Your task to perform on an android device: toggle show notifications on the lock screen Image 0: 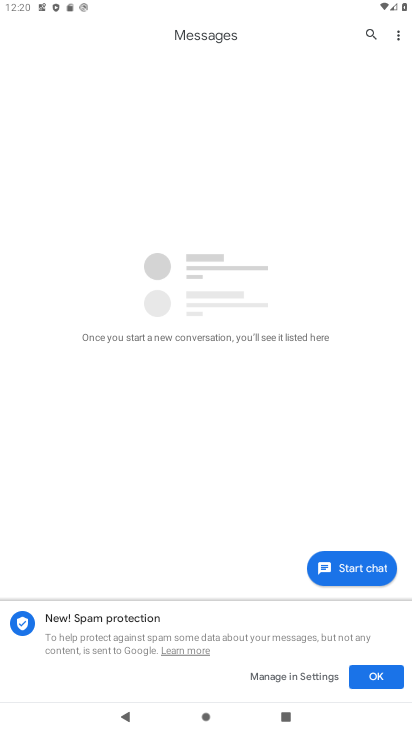
Step 0: press home button
Your task to perform on an android device: toggle show notifications on the lock screen Image 1: 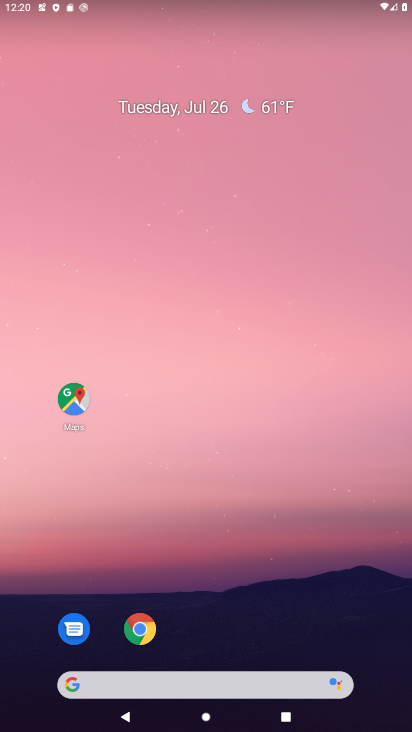
Step 1: drag from (199, 642) to (236, 214)
Your task to perform on an android device: toggle show notifications on the lock screen Image 2: 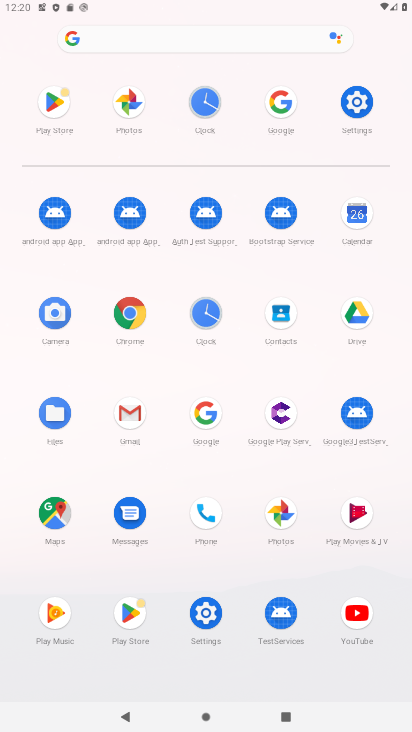
Step 2: click (355, 94)
Your task to perform on an android device: toggle show notifications on the lock screen Image 3: 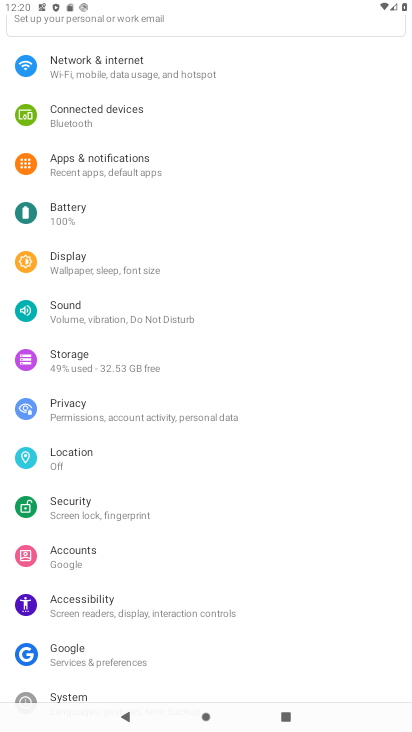
Step 3: click (169, 157)
Your task to perform on an android device: toggle show notifications on the lock screen Image 4: 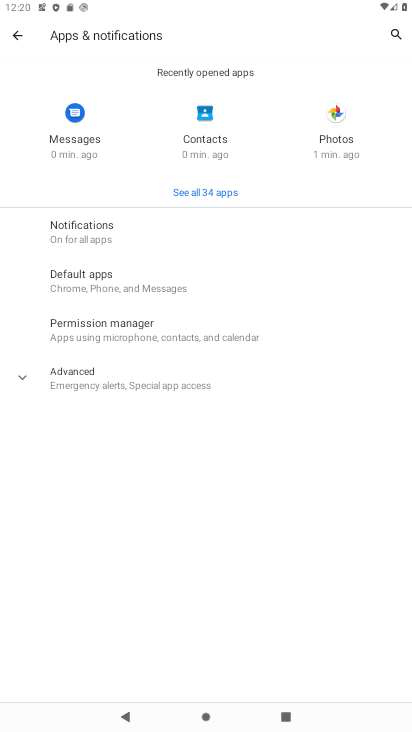
Step 4: click (158, 241)
Your task to perform on an android device: toggle show notifications on the lock screen Image 5: 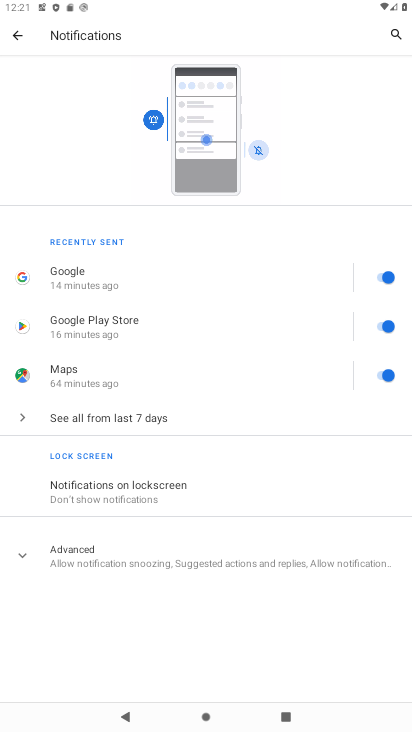
Step 5: click (133, 503)
Your task to perform on an android device: toggle show notifications on the lock screen Image 6: 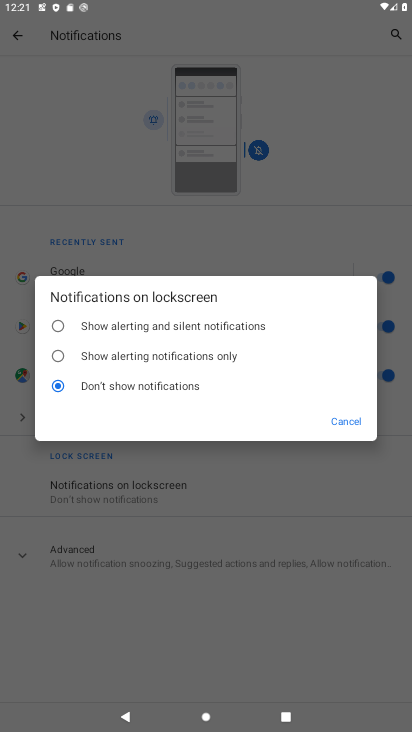
Step 6: click (187, 332)
Your task to perform on an android device: toggle show notifications on the lock screen Image 7: 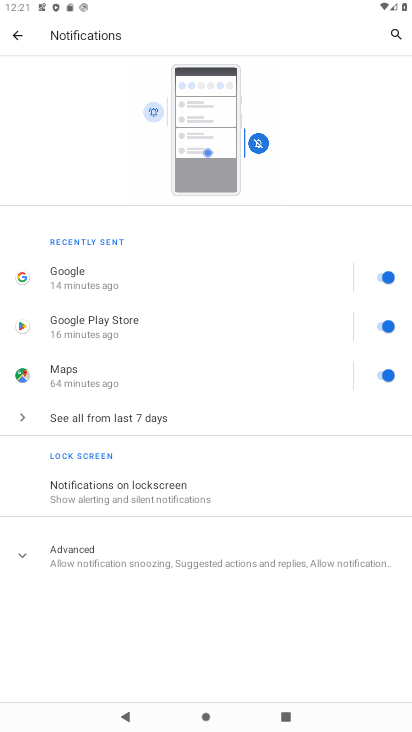
Step 7: task complete